Your task to perform on an android device: open app "Grab" Image 0: 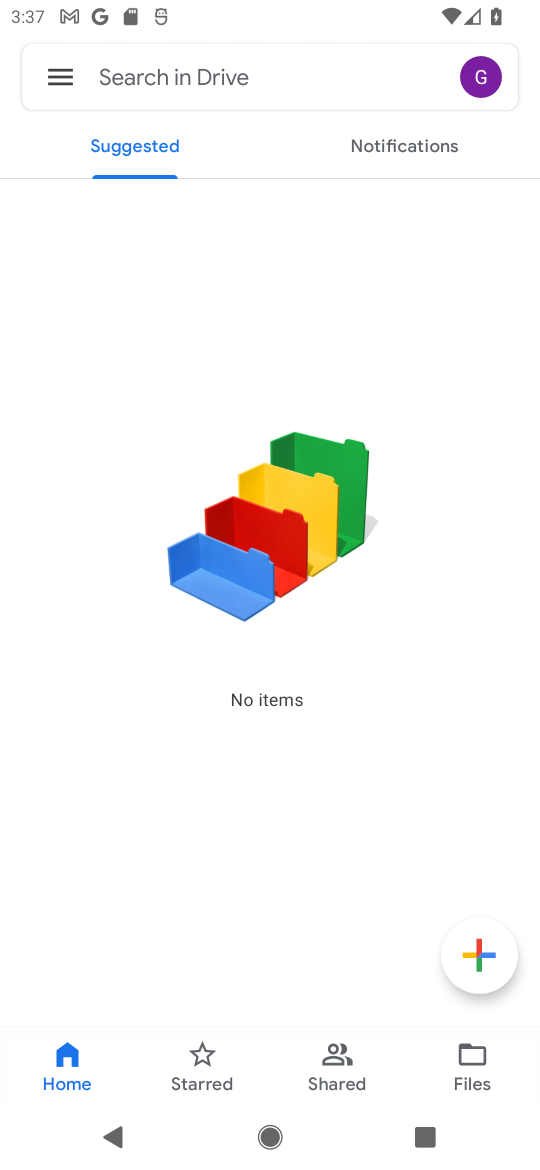
Step 0: press home button
Your task to perform on an android device: open app "Grab" Image 1: 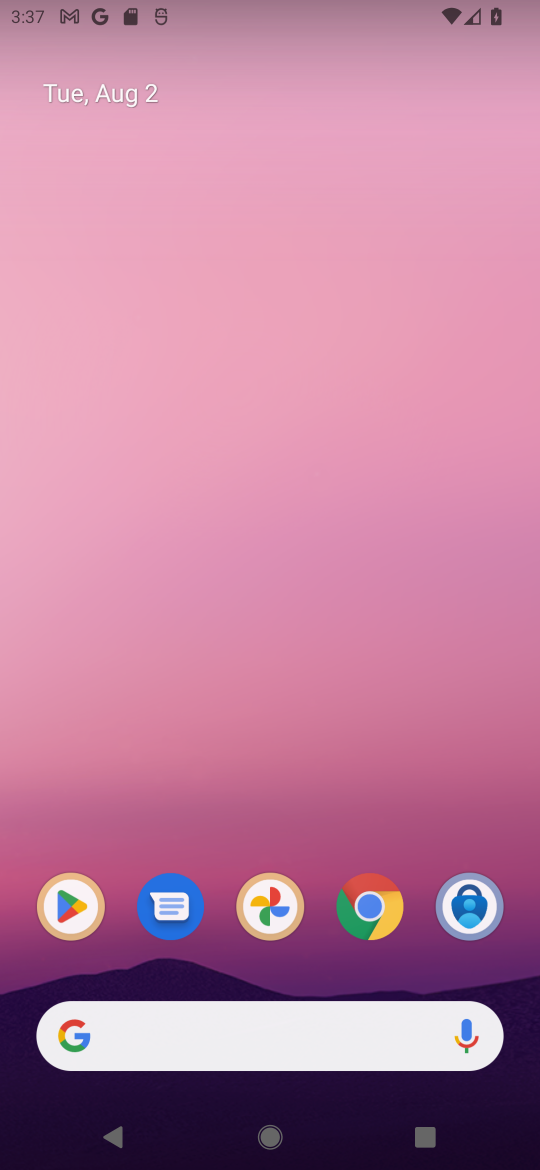
Step 1: drag from (330, 928) to (511, 109)
Your task to perform on an android device: open app "Grab" Image 2: 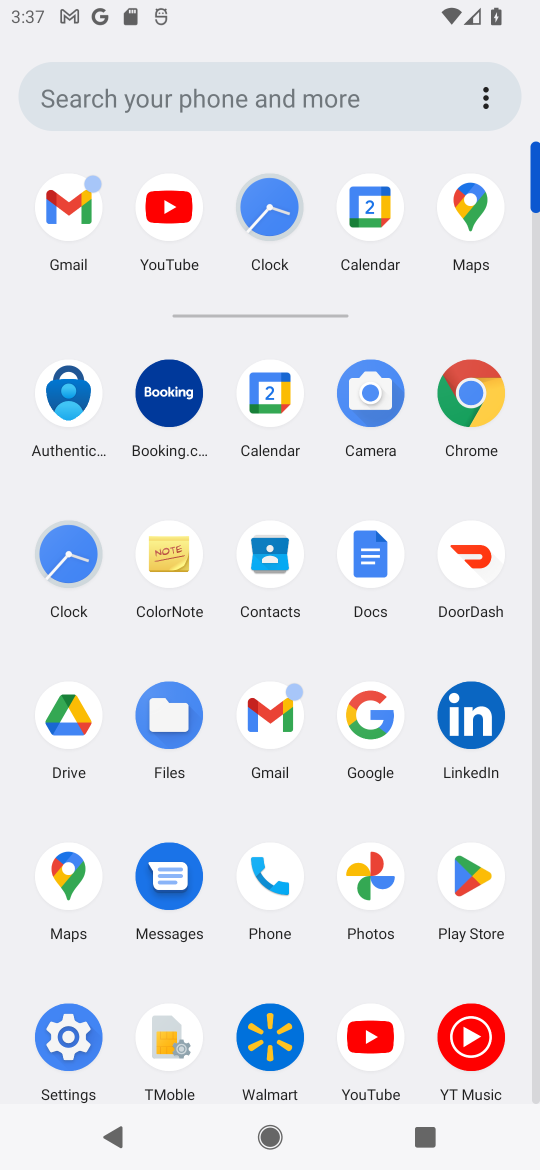
Step 2: click (464, 877)
Your task to perform on an android device: open app "Grab" Image 3: 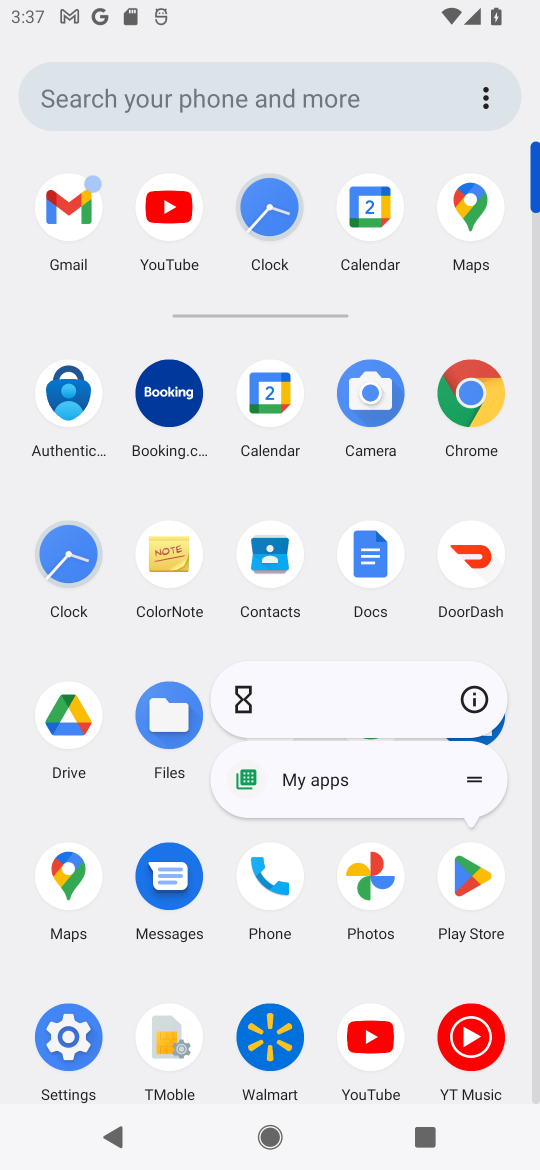
Step 3: click (465, 878)
Your task to perform on an android device: open app "Grab" Image 4: 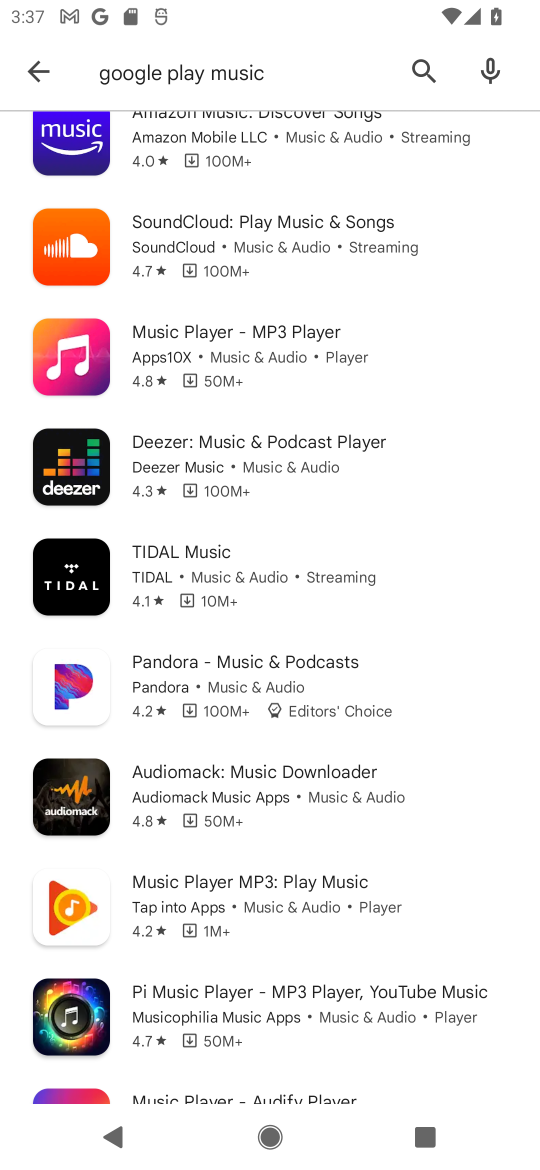
Step 4: click (423, 65)
Your task to perform on an android device: open app "Grab" Image 5: 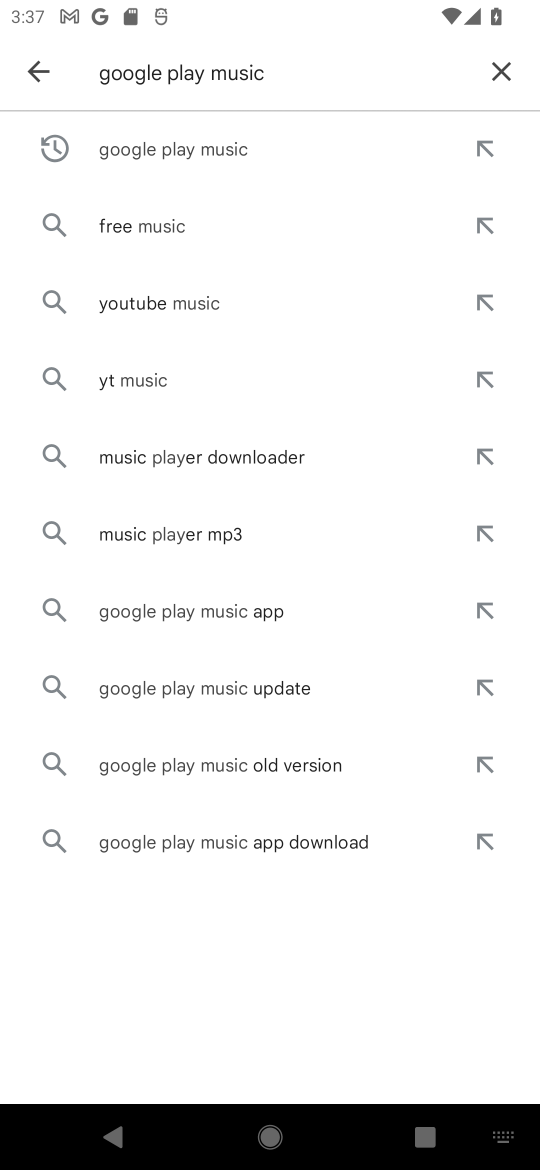
Step 5: click (509, 62)
Your task to perform on an android device: open app "Grab" Image 6: 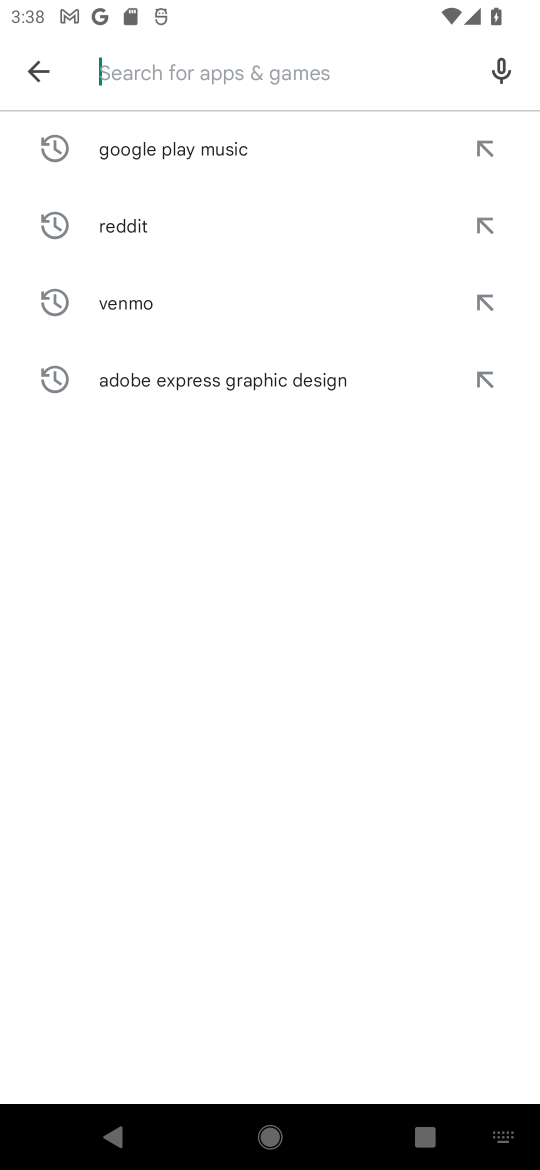
Step 6: click (197, 71)
Your task to perform on an android device: open app "Grab" Image 7: 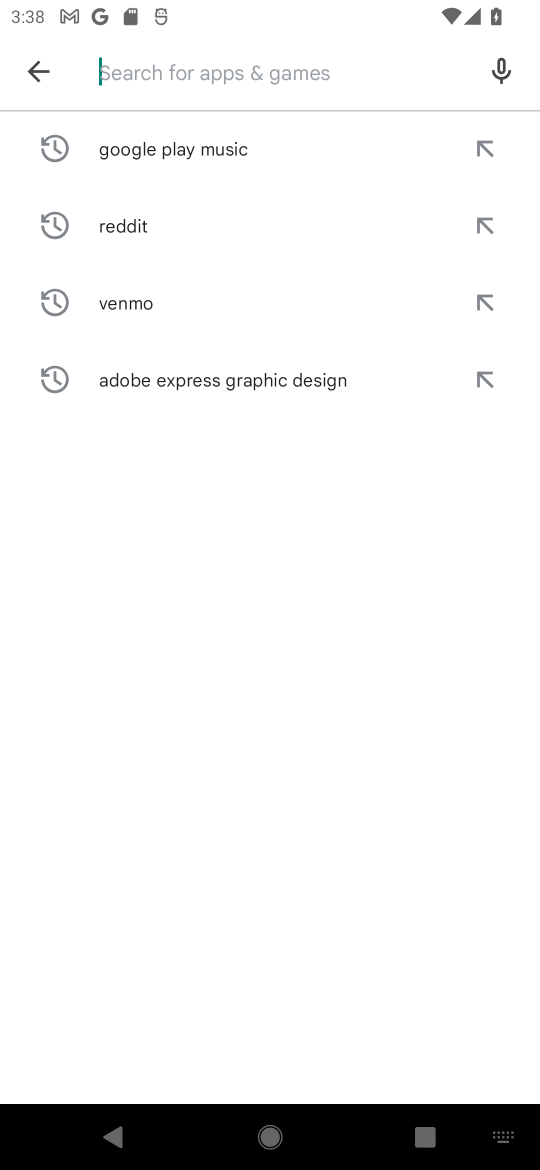
Step 7: type "Grab"
Your task to perform on an android device: open app "Grab" Image 8: 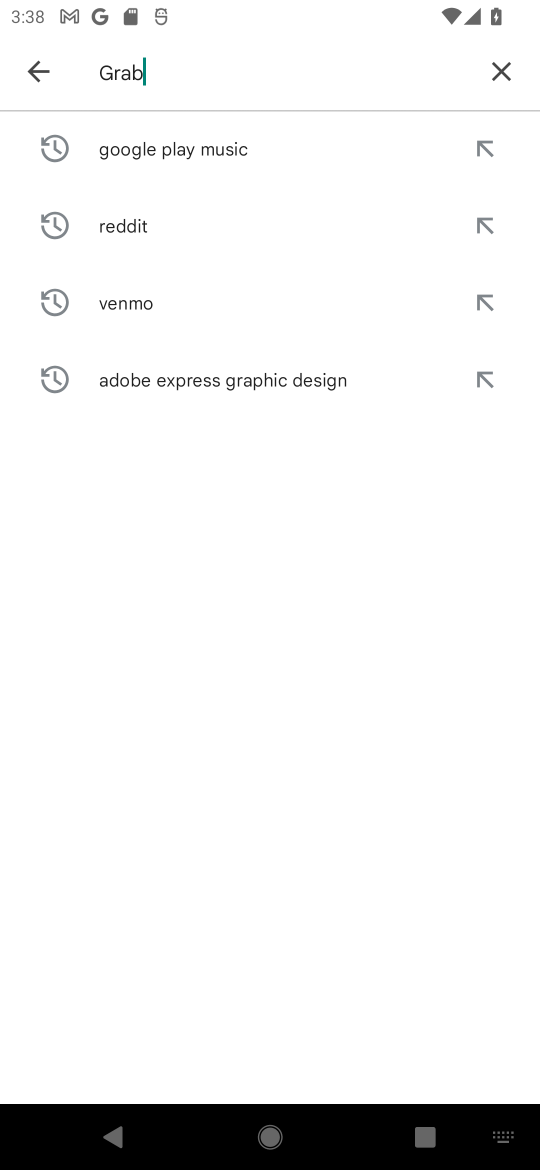
Step 8: type ""
Your task to perform on an android device: open app "Grab" Image 9: 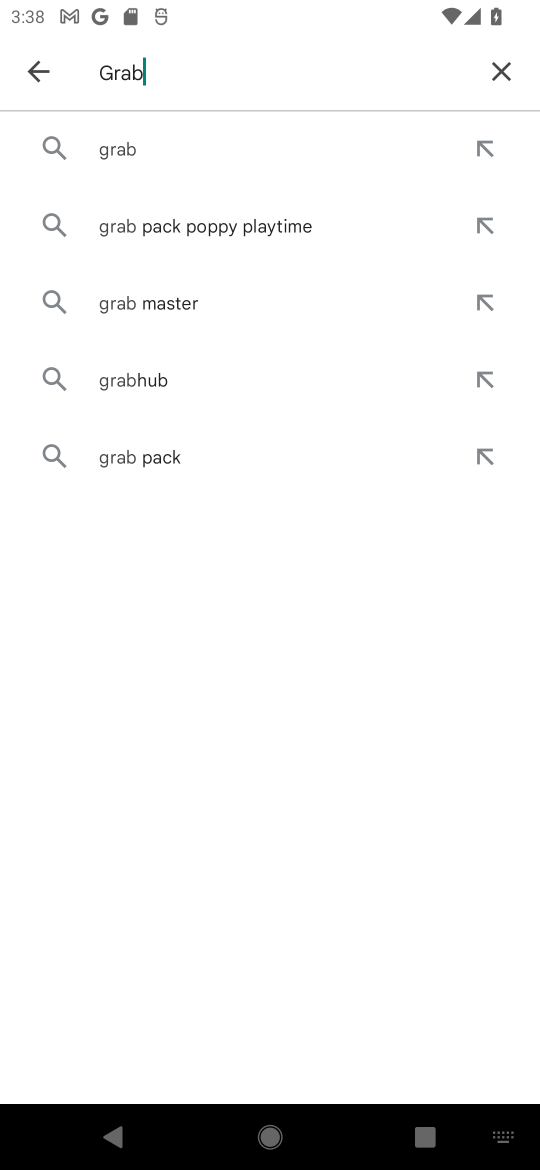
Step 9: click (145, 164)
Your task to perform on an android device: open app "Grab" Image 10: 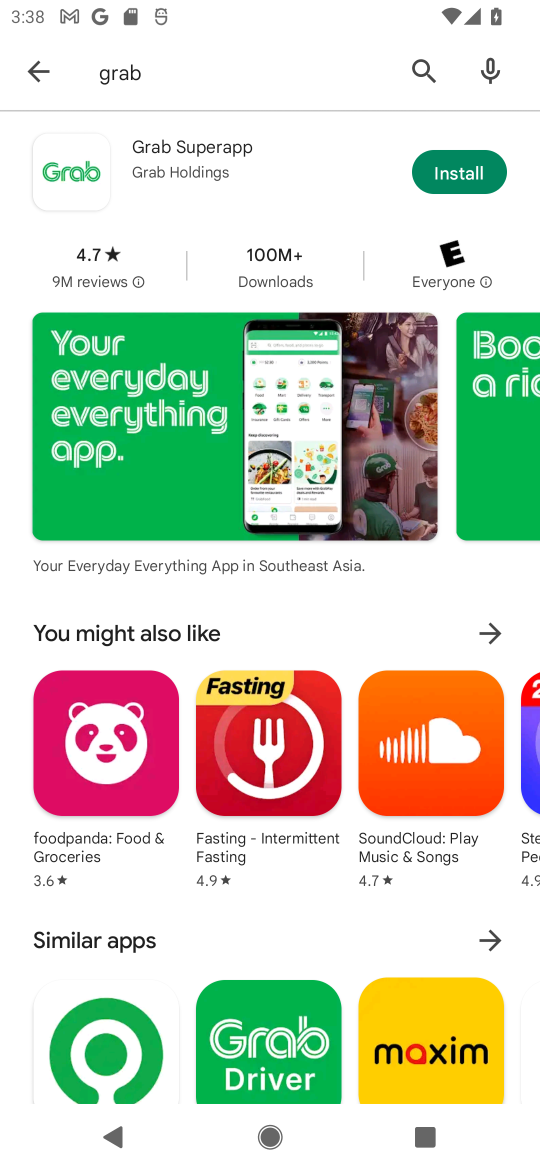
Step 10: click (158, 149)
Your task to perform on an android device: open app "Grab" Image 11: 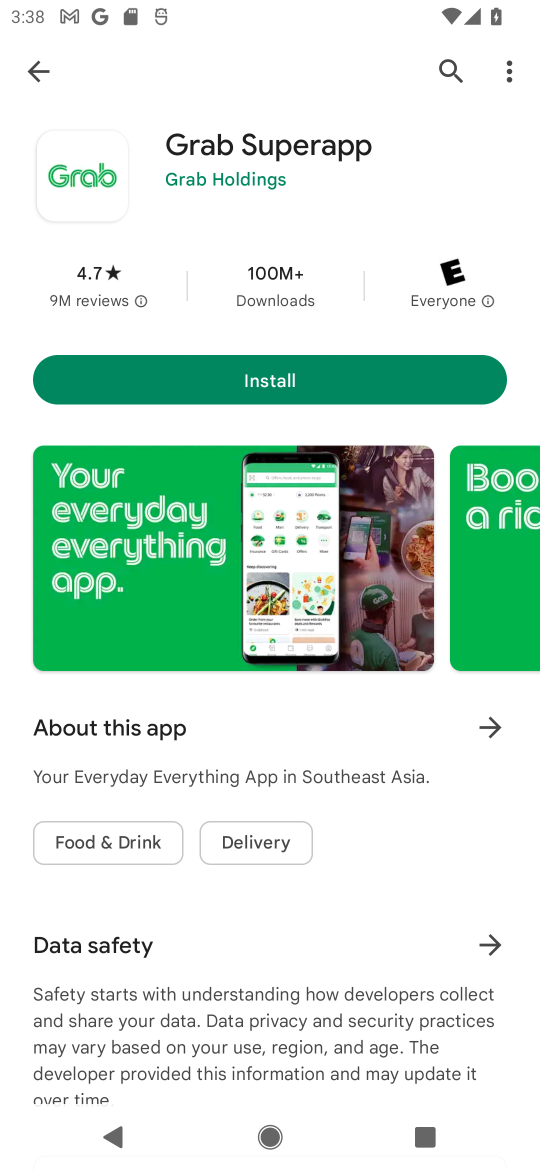
Step 11: task complete